Your task to perform on an android device: Go to internet settings Image 0: 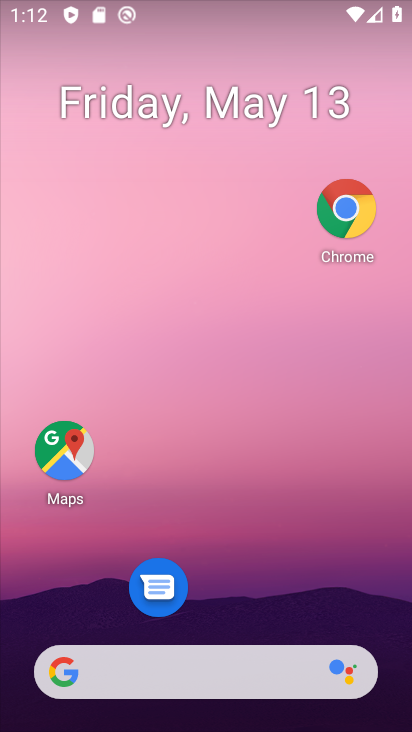
Step 0: drag from (254, 536) to (326, 28)
Your task to perform on an android device: Go to internet settings Image 1: 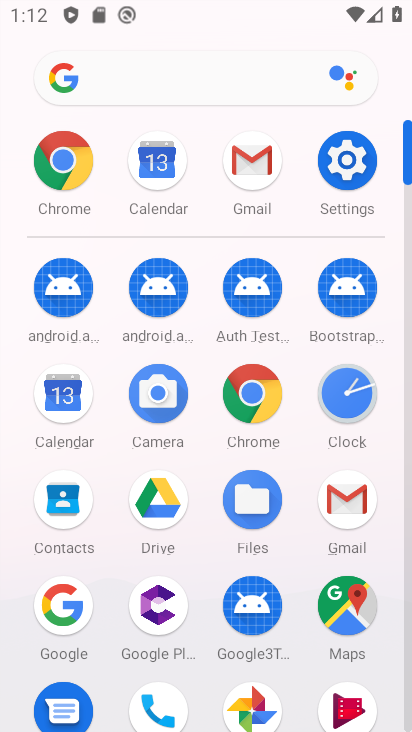
Step 1: click (349, 160)
Your task to perform on an android device: Go to internet settings Image 2: 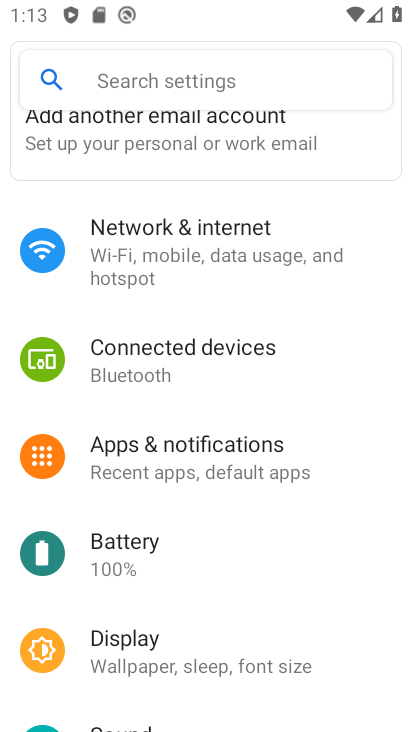
Step 2: click (196, 254)
Your task to perform on an android device: Go to internet settings Image 3: 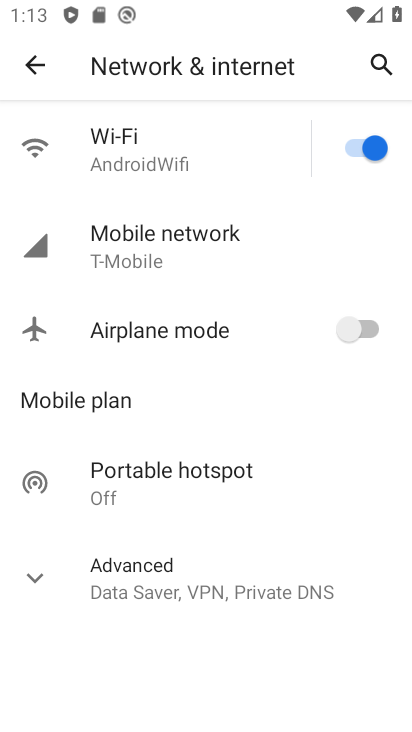
Step 3: task complete